Your task to perform on an android device: What's the weather today? Image 0: 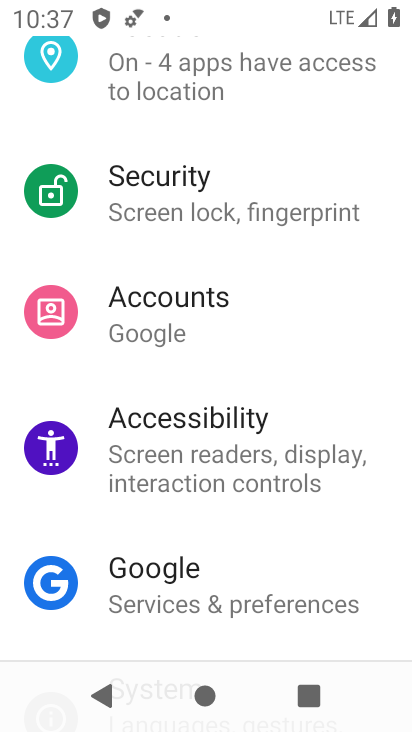
Step 0: click (359, 326)
Your task to perform on an android device: What's the weather today? Image 1: 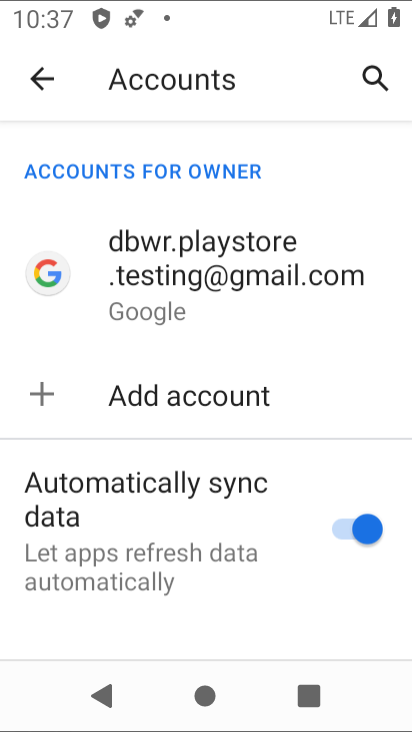
Step 1: press home button
Your task to perform on an android device: What's the weather today? Image 2: 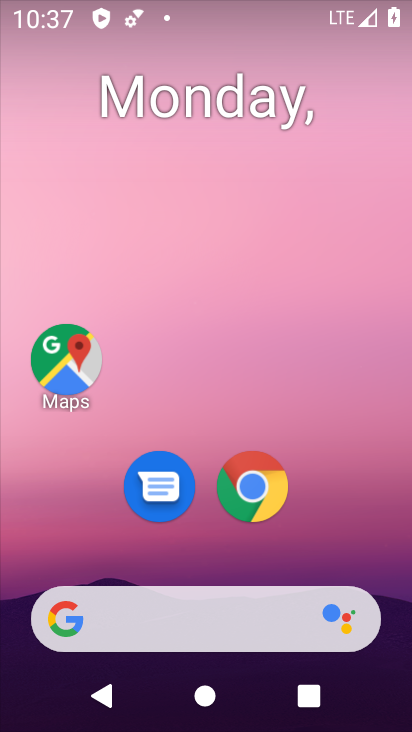
Step 2: click (233, 614)
Your task to perform on an android device: What's the weather today? Image 3: 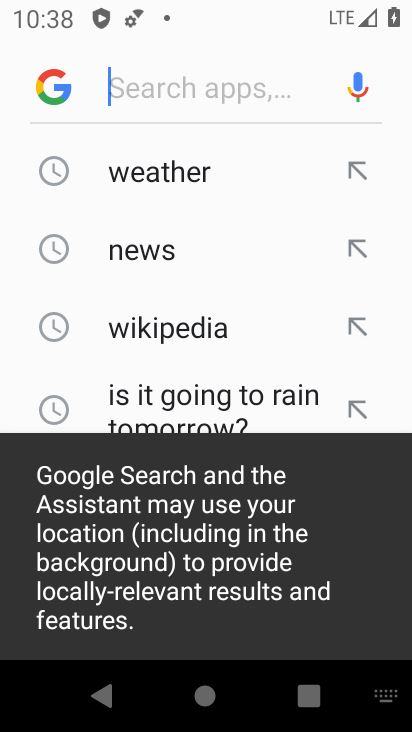
Step 3: click (193, 174)
Your task to perform on an android device: What's the weather today? Image 4: 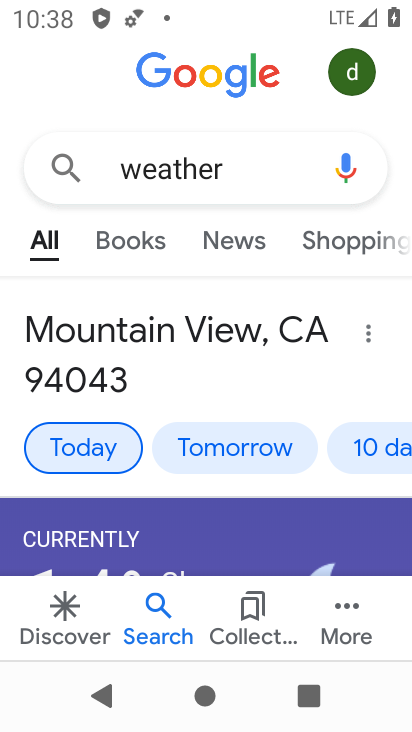
Step 4: task complete